Your task to perform on an android device: Open ESPN.com Image 0: 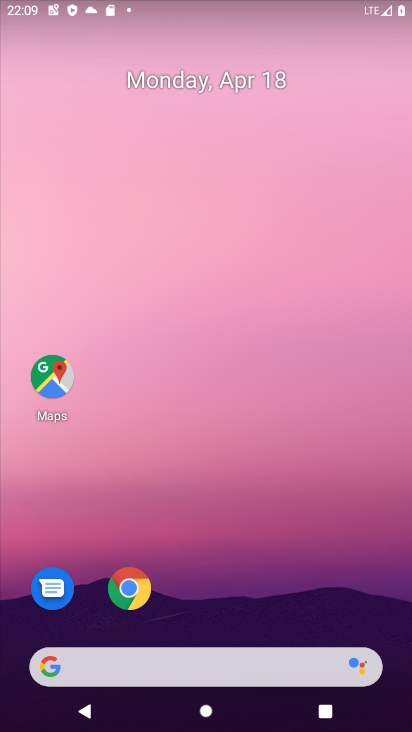
Step 0: click (126, 590)
Your task to perform on an android device: Open ESPN.com Image 1: 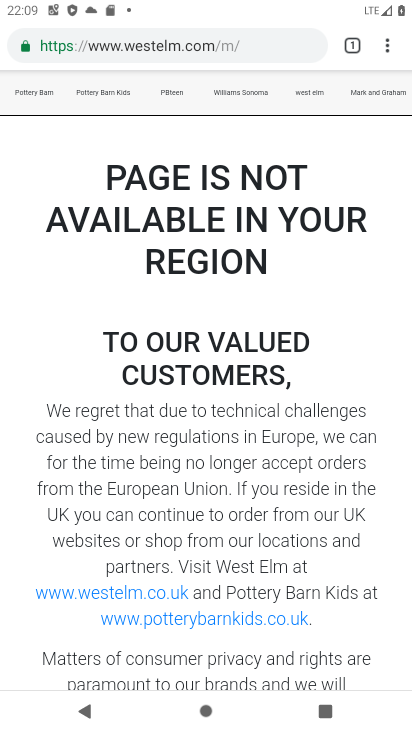
Step 1: click (155, 42)
Your task to perform on an android device: Open ESPN.com Image 2: 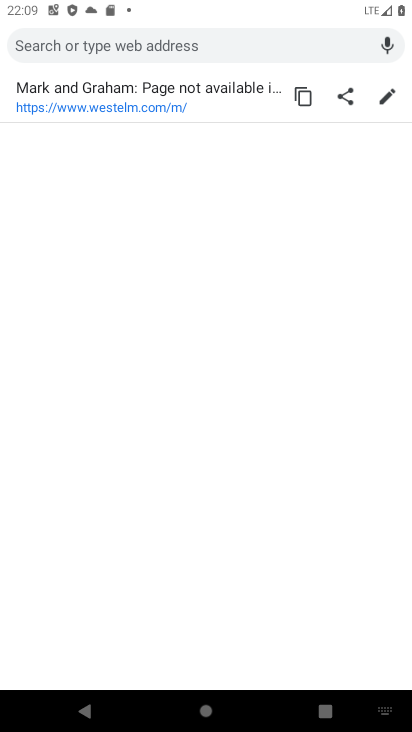
Step 2: type "espn"
Your task to perform on an android device: Open ESPN.com Image 3: 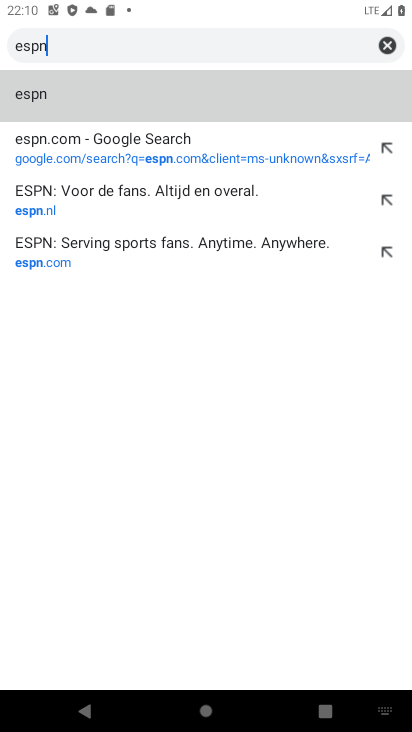
Step 3: click (46, 245)
Your task to perform on an android device: Open ESPN.com Image 4: 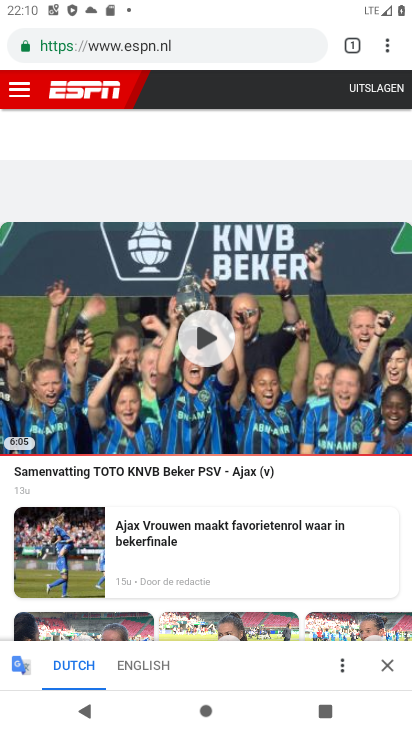
Step 4: task complete